Your task to perform on an android device: Search for Mexican restaurants on Maps Image 0: 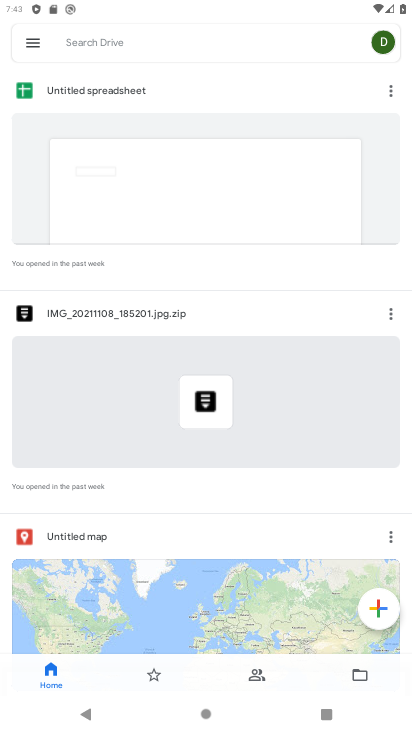
Step 0: press home button
Your task to perform on an android device: Search for Mexican restaurants on Maps Image 1: 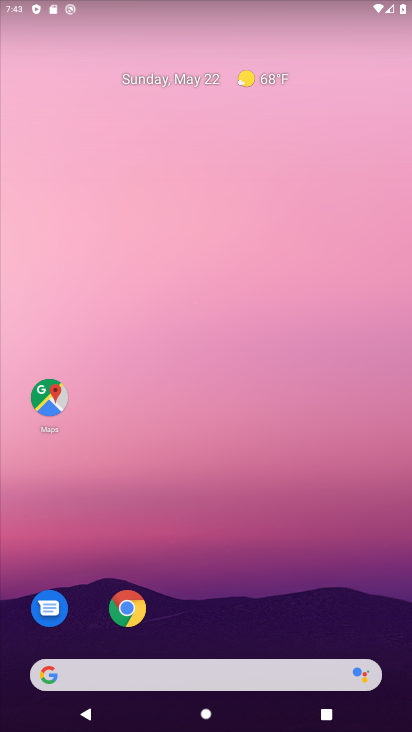
Step 1: drag from (224, 729) to (221, 231)
Your task to perform on an android device: Search for Mexican restaurants on Maps Image 2: 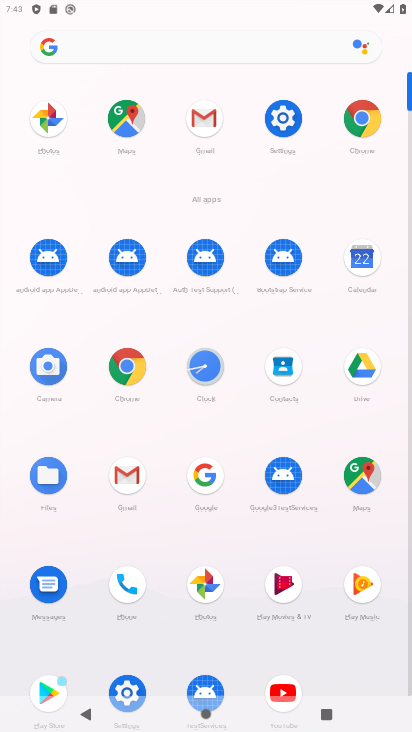
Step 2: click (371, 470)
Your task to perform on an android device: Search for Mexican restaurants on Maps Image 3: 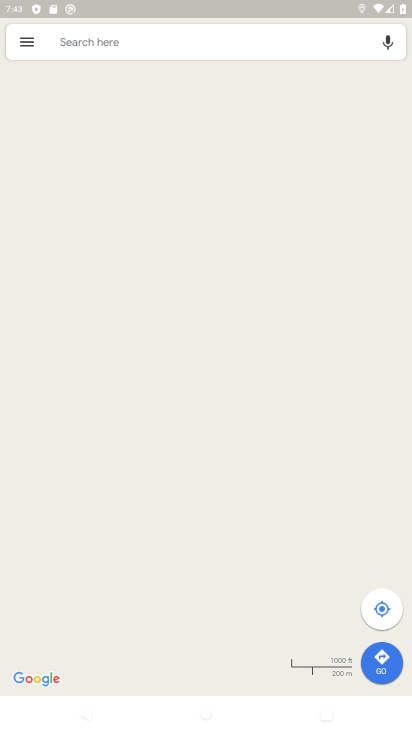
Step 3: click (213, 49)
Your task to perform on an android device: Search for Mexican restaurants on Maps Image 4: 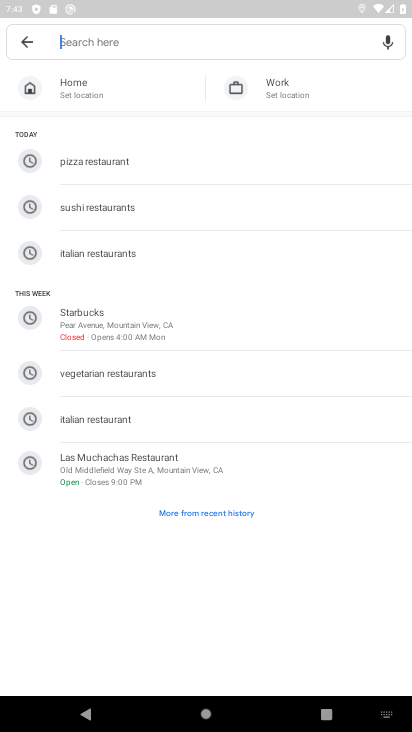
Step 4: type "Mexican restaurants"
Your task to perform on an android device: Search for Mexican restaurants on Maps Image 5: 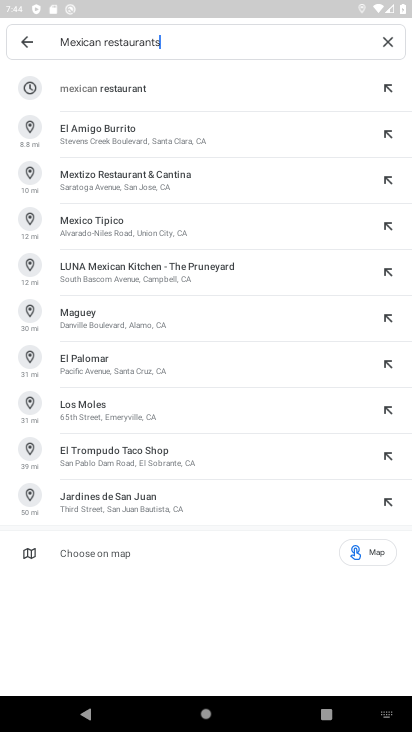
Step 5: click (122, 88)
Your task to perform on an android device: Search for Mexican restaurants on Maps Image 6: 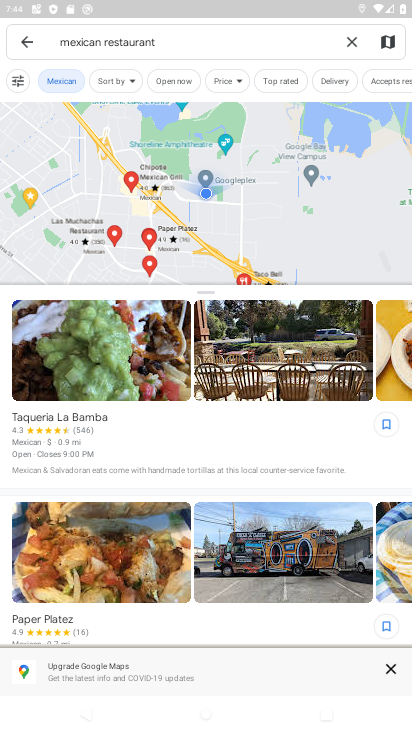
Step 6: task complete